Your task to perform on an android device: change keyboard looks Image 0: 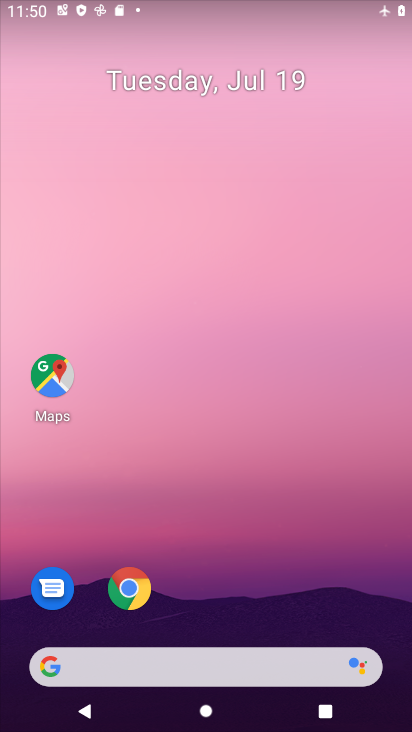
Step 0: drag from (389, 631) to (197, 10)
Your task to perform on an android device: change keyboard looks Image 1: 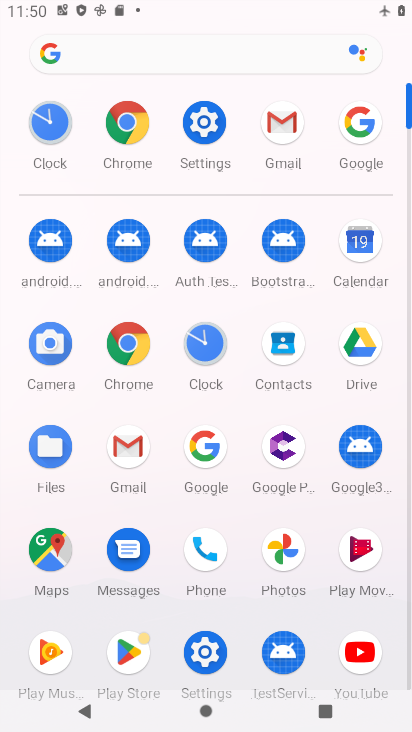
Step 1: click (210, 649)
Your task to perform on an android device: change keyboard looks Image 2: 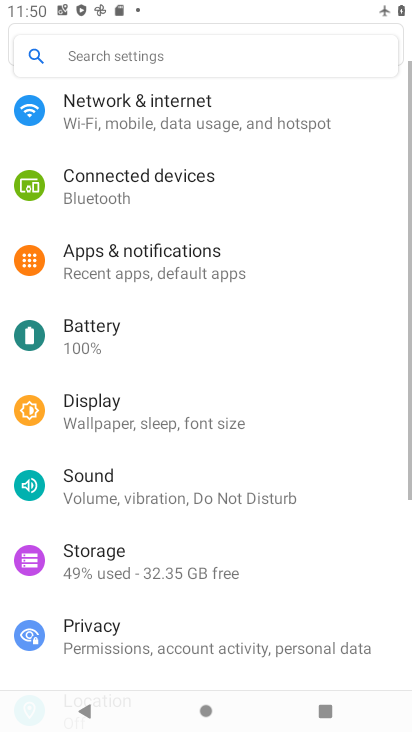
Step 2: drag from (203, 640) to (163, 48)
Your task to perform on an android device: change keyboard looks Image 3: 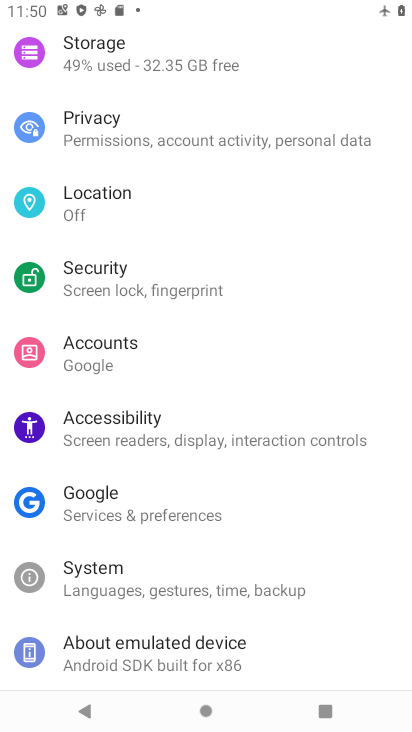
Step 3: click (147, 590)
Your task to perform on an android device: change keyboard looks Image 4: 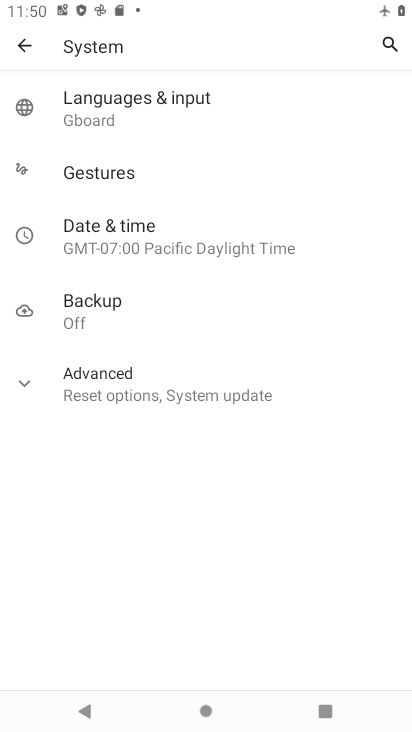
Step 4: click (116, 119)
Your task to perform on an android device: change keyboard looks Image 5: 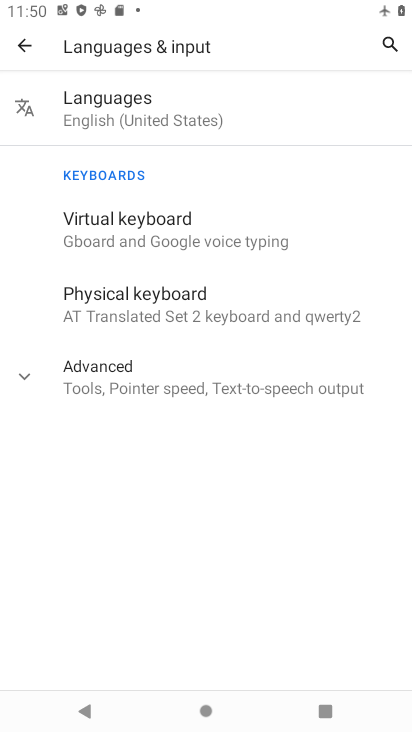
Step 5: click (104, 214)
Your task to perform on an android device: change keyboard looks Image 6: 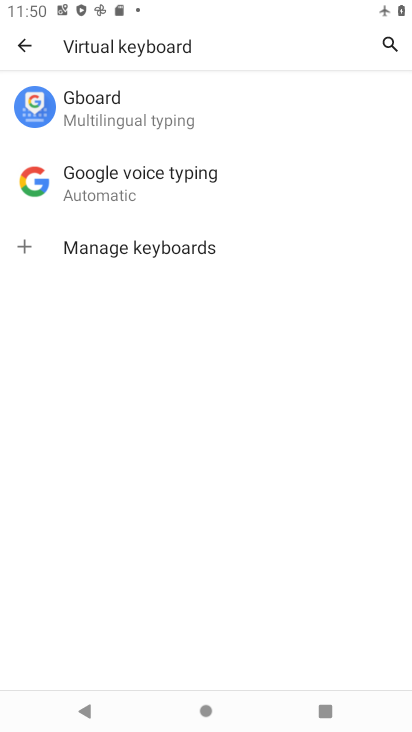
Step 6: click (106, 116)
Your task to perform on an android device: change keyboard looks Image 7: 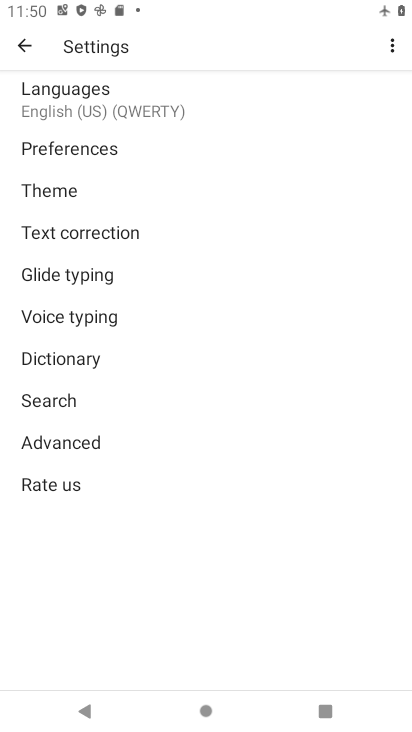
Step 7: click (32, 196)
Your task to perform on an android device: change keyboard looks Image 8: 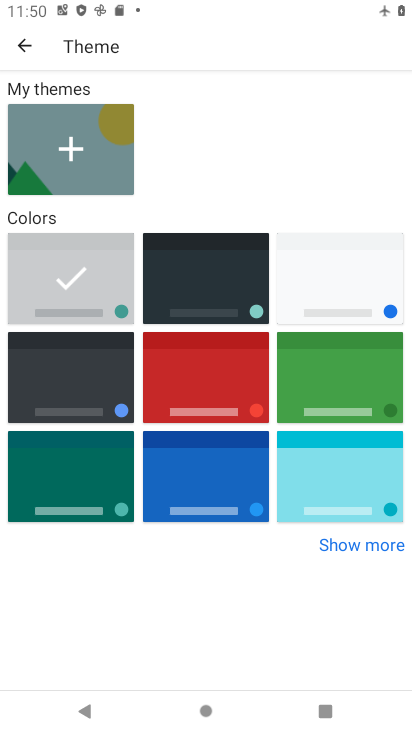
Step 8: click (277, 312)
Your task to perform on an android device: change keyboard looks Image 9: 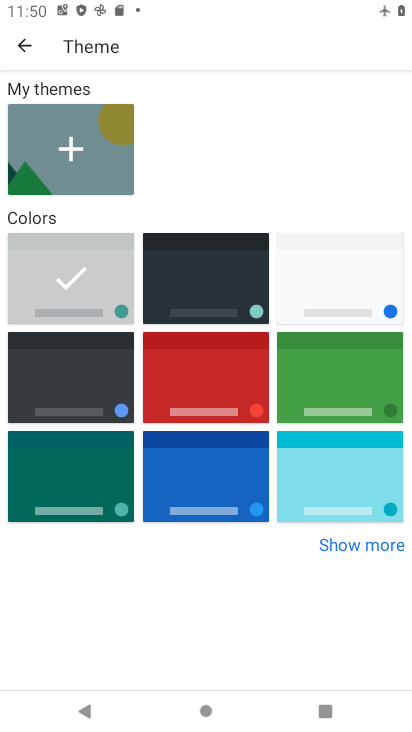
Step 9: click (214, 274)
Your task to perform on an android device: change keyboard looks Image 10: 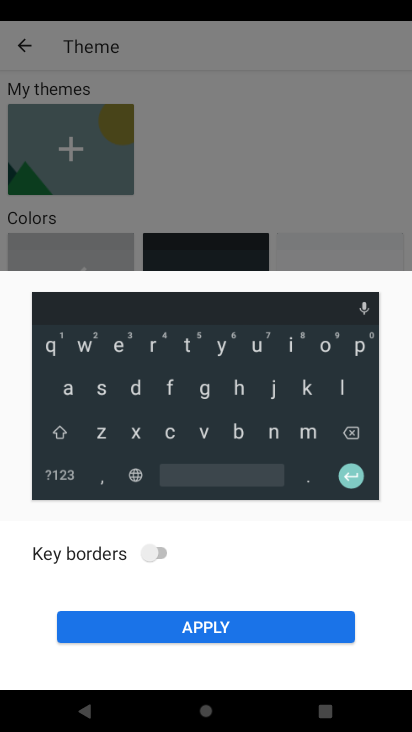
Step 10: click (219, 630)
Your task to perform on an android device: change keyboard looks Image 11: 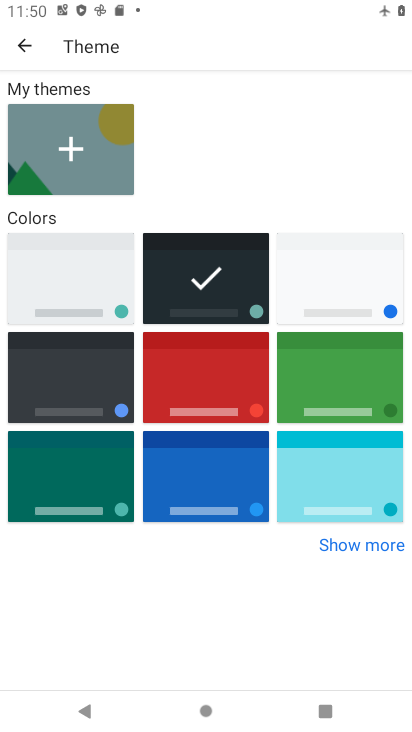
Step 11: task complete